Your task to perform on an android device: Open ESPN.com Image 0: 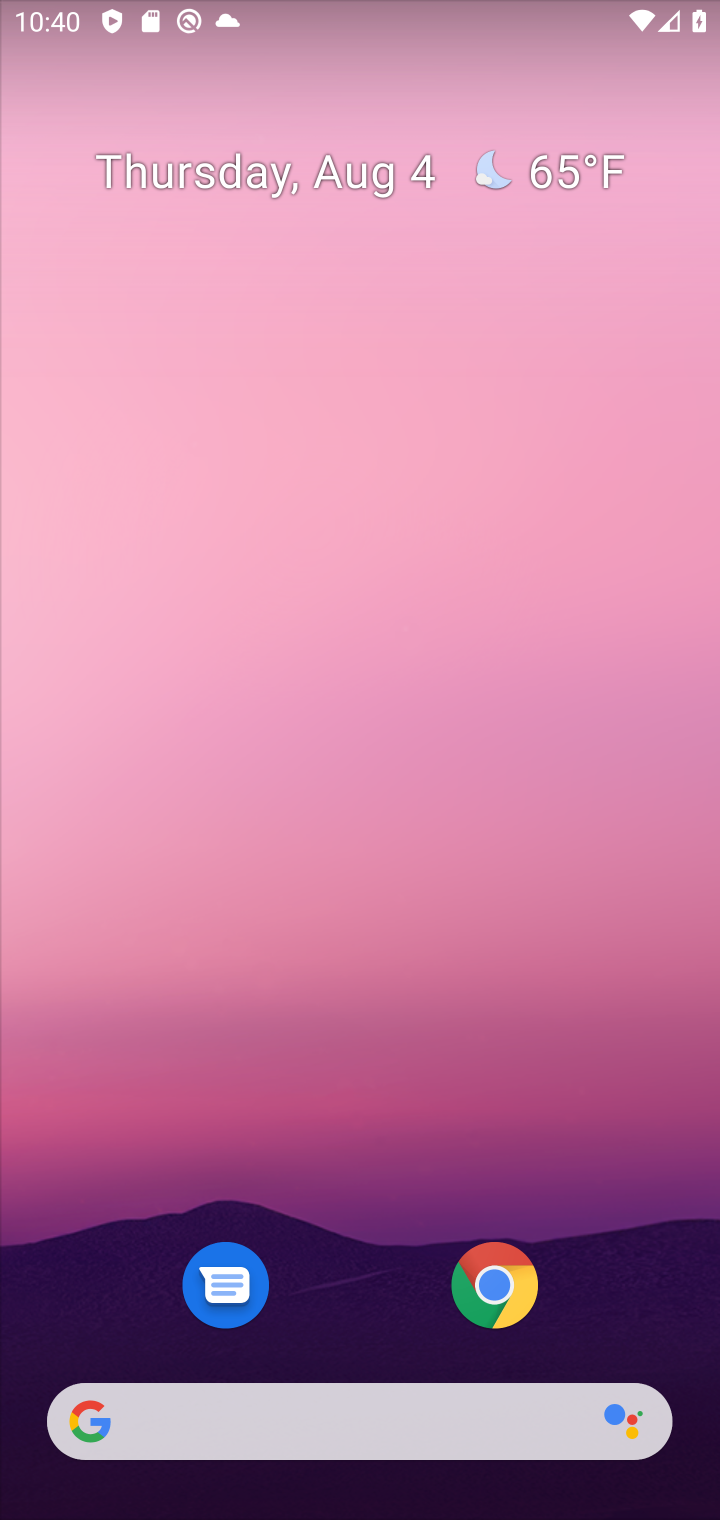
Step 0: click (503, 1299)
Your task to perform on an android device: Open ESPN.com Image 1: 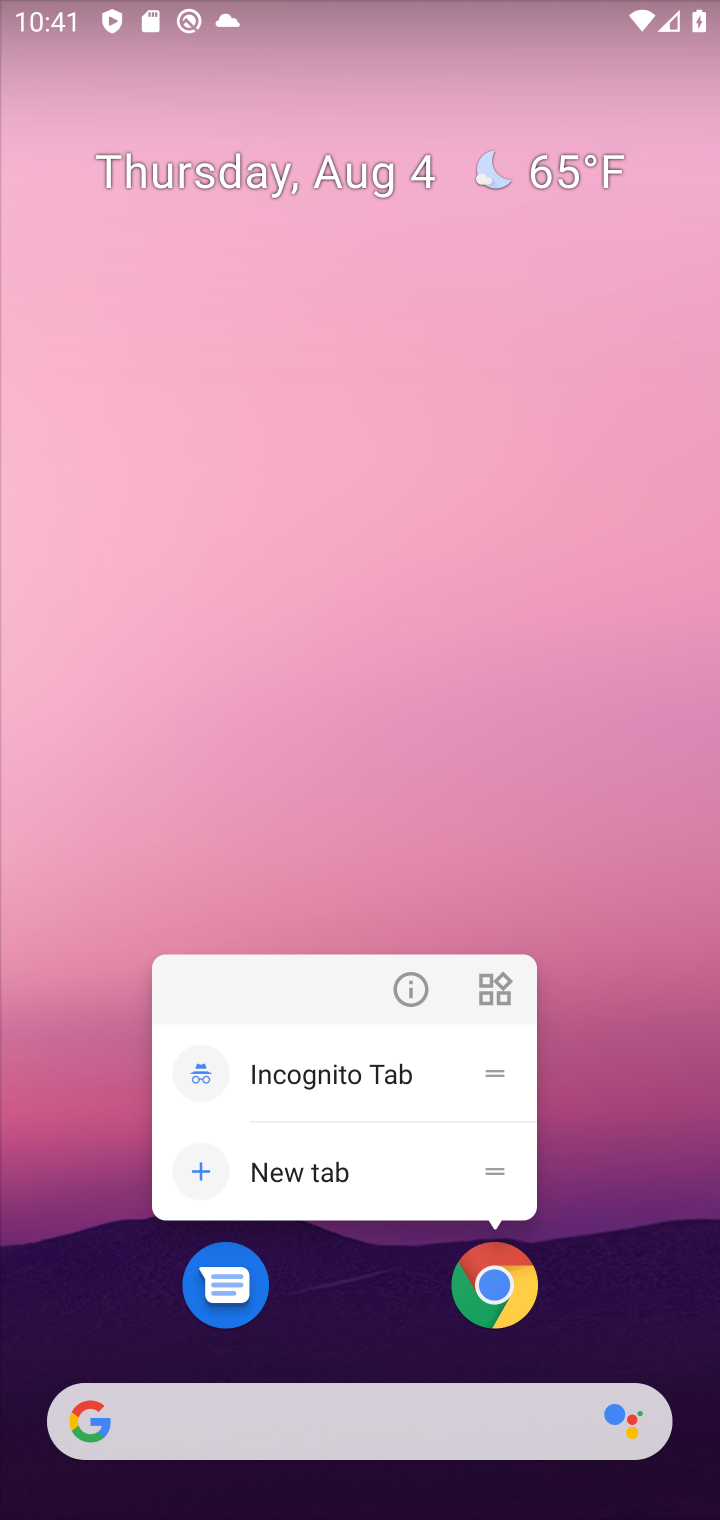
Step 1: click (493, 1264)
Your task to perform on an android device: Open ESPN.com Image 2: 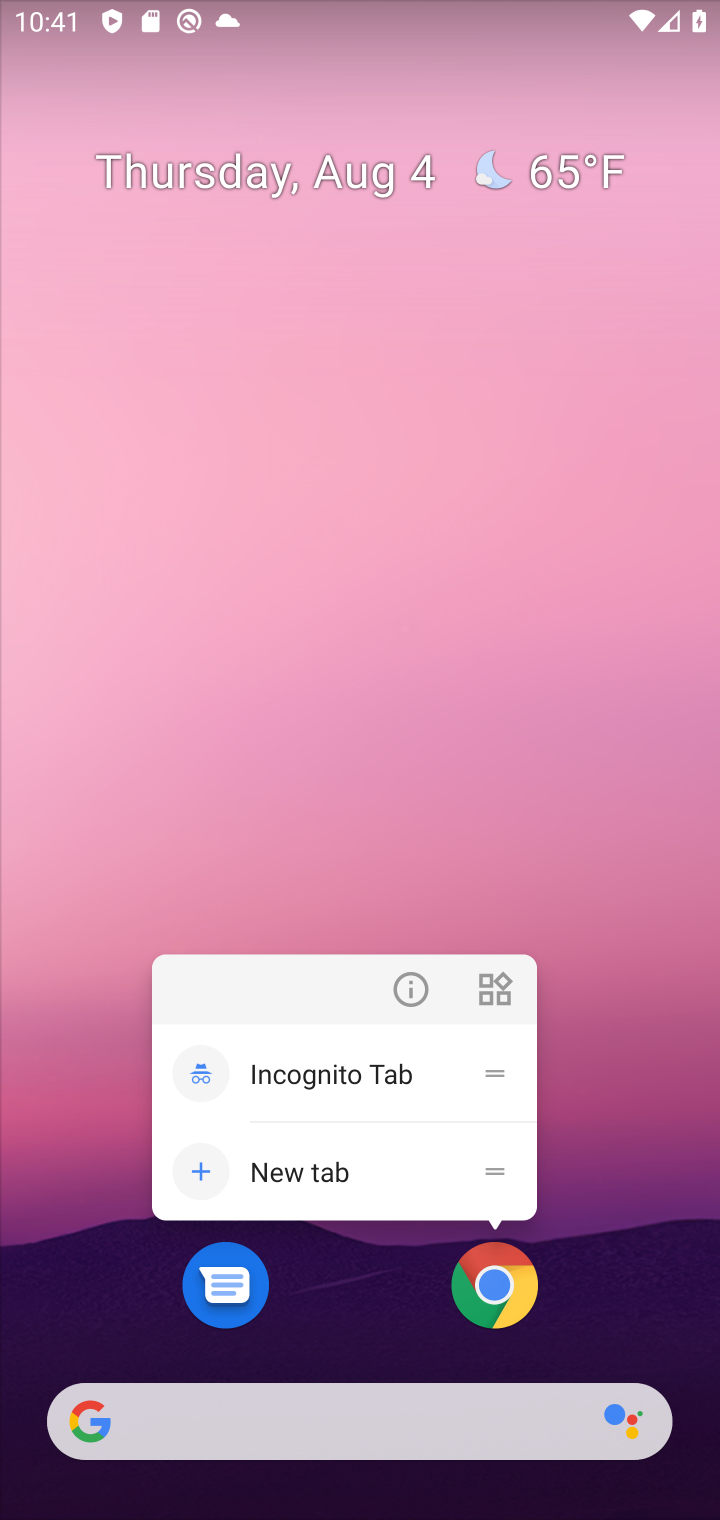
Step 2: click (513, 1267)
Your task to perform on an android device: Open ESPN.com Image 3: 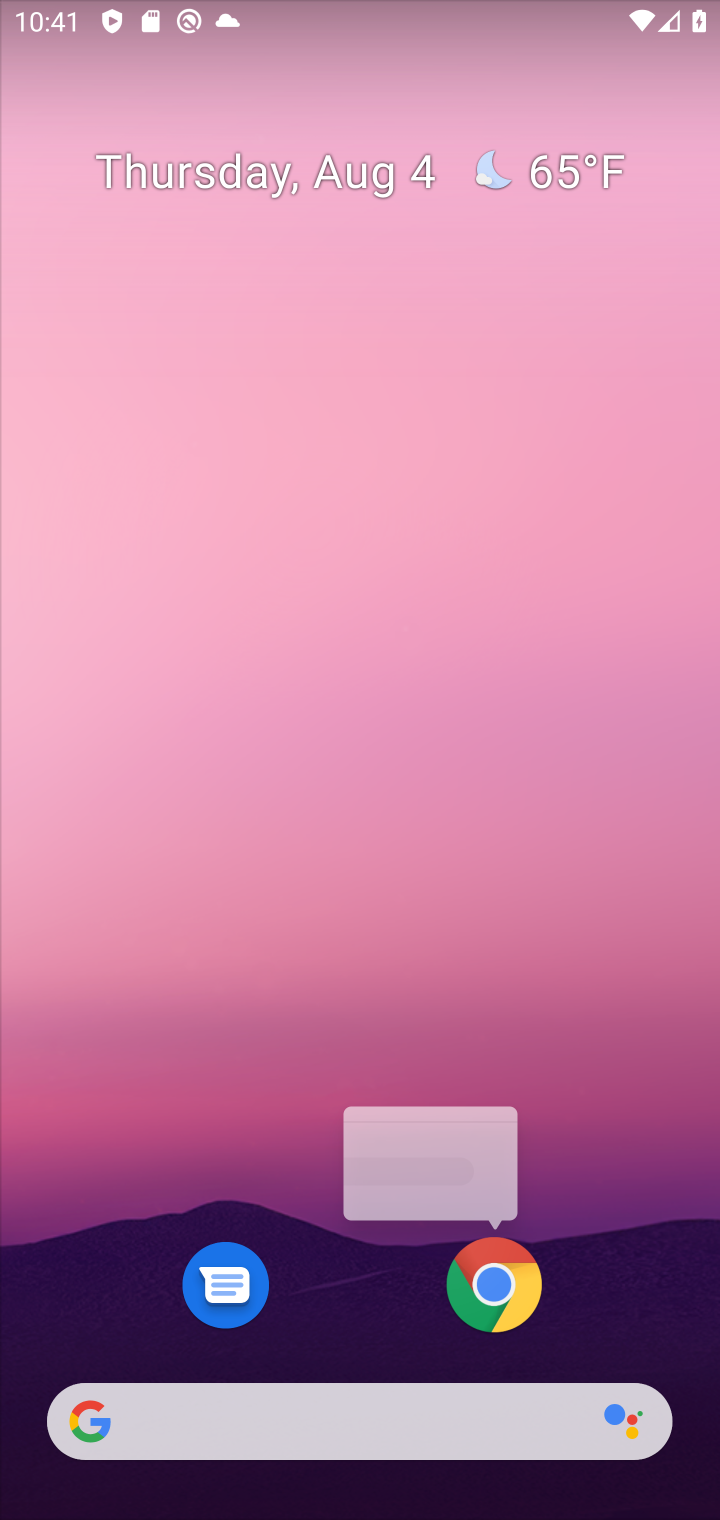
Step 3: drag from (579, 1298) to (585, 5)
Your task to perform on an android device: Open ESPN.com Image 4: 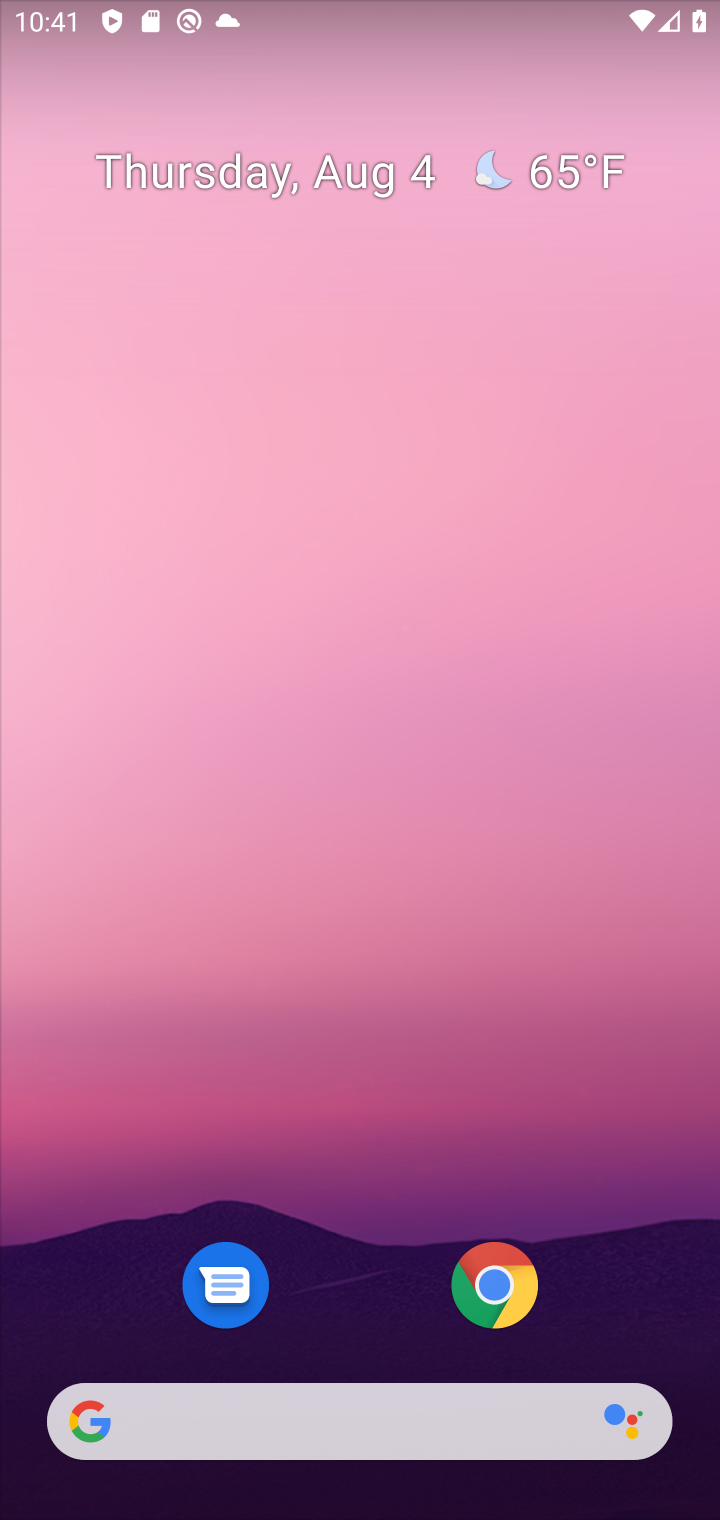
Step 4: drag from (304, 1258) to (362, 6)
Your task to perform on an android device: Open ESPN.com Image 5: 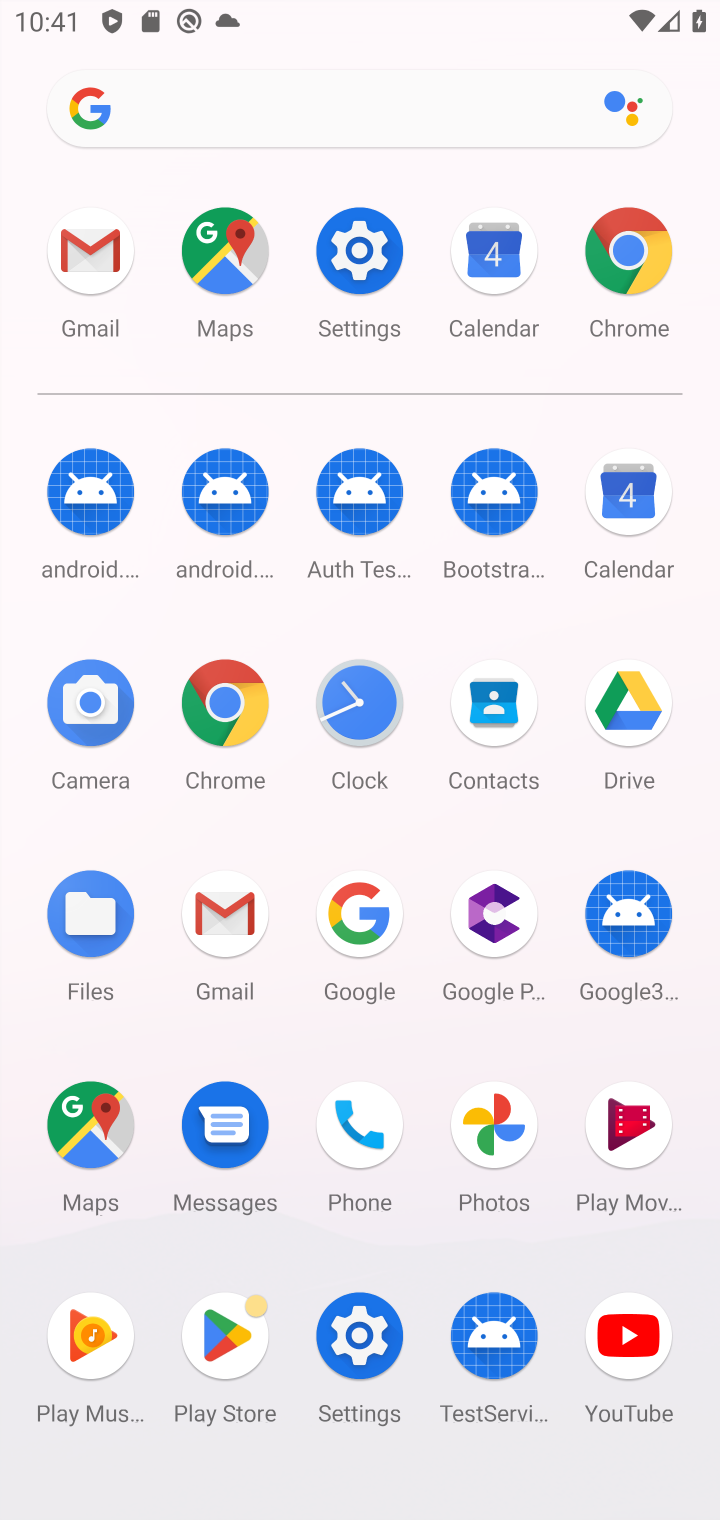
Step 5: click (219, 696)
Your task to perform on an android device: Open ESPN.com Image 6: 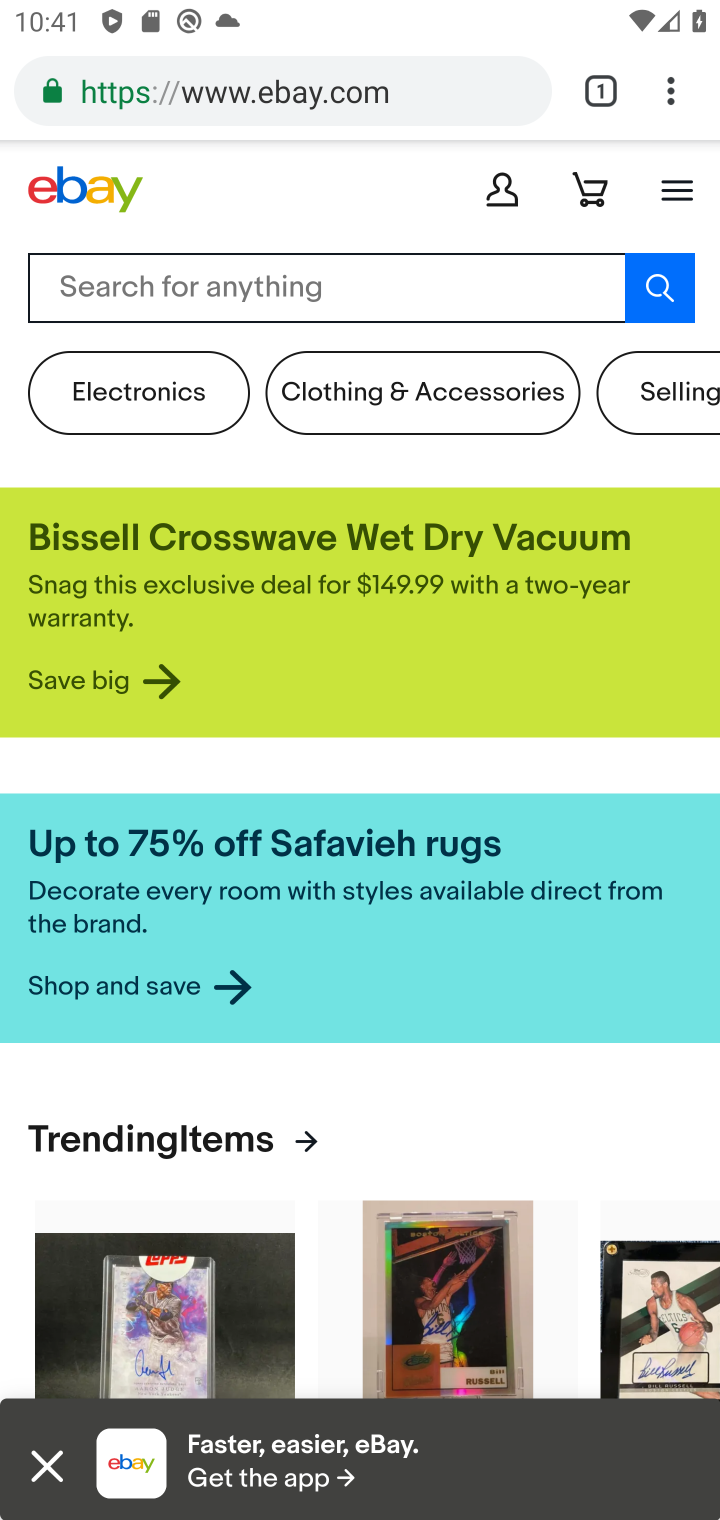
Step 6: click (180, 93)
Your task to perform on an android device: Open ESPN.com Image 7: 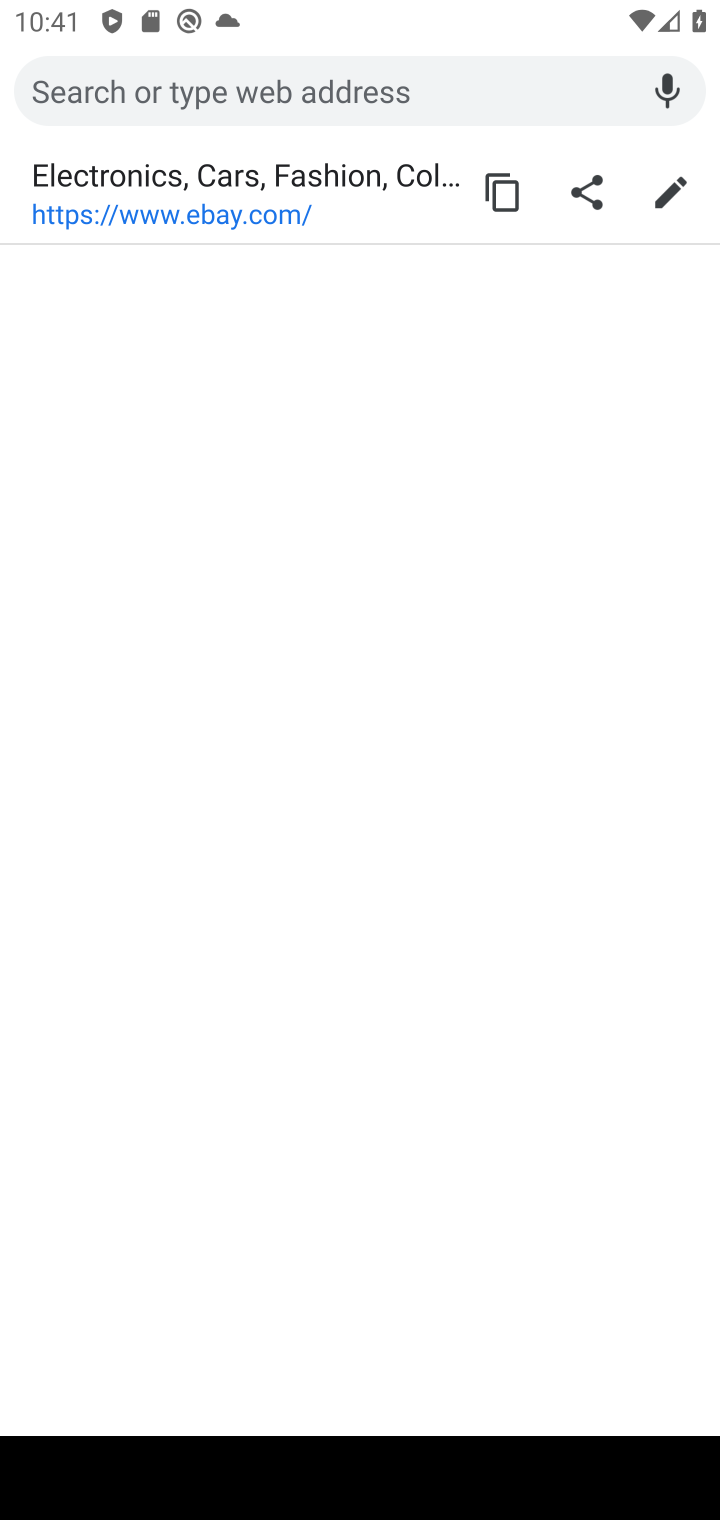
Step 7: type " ESPN.com"
Your task to perform on an android device: Open ESPN.com Image 8: 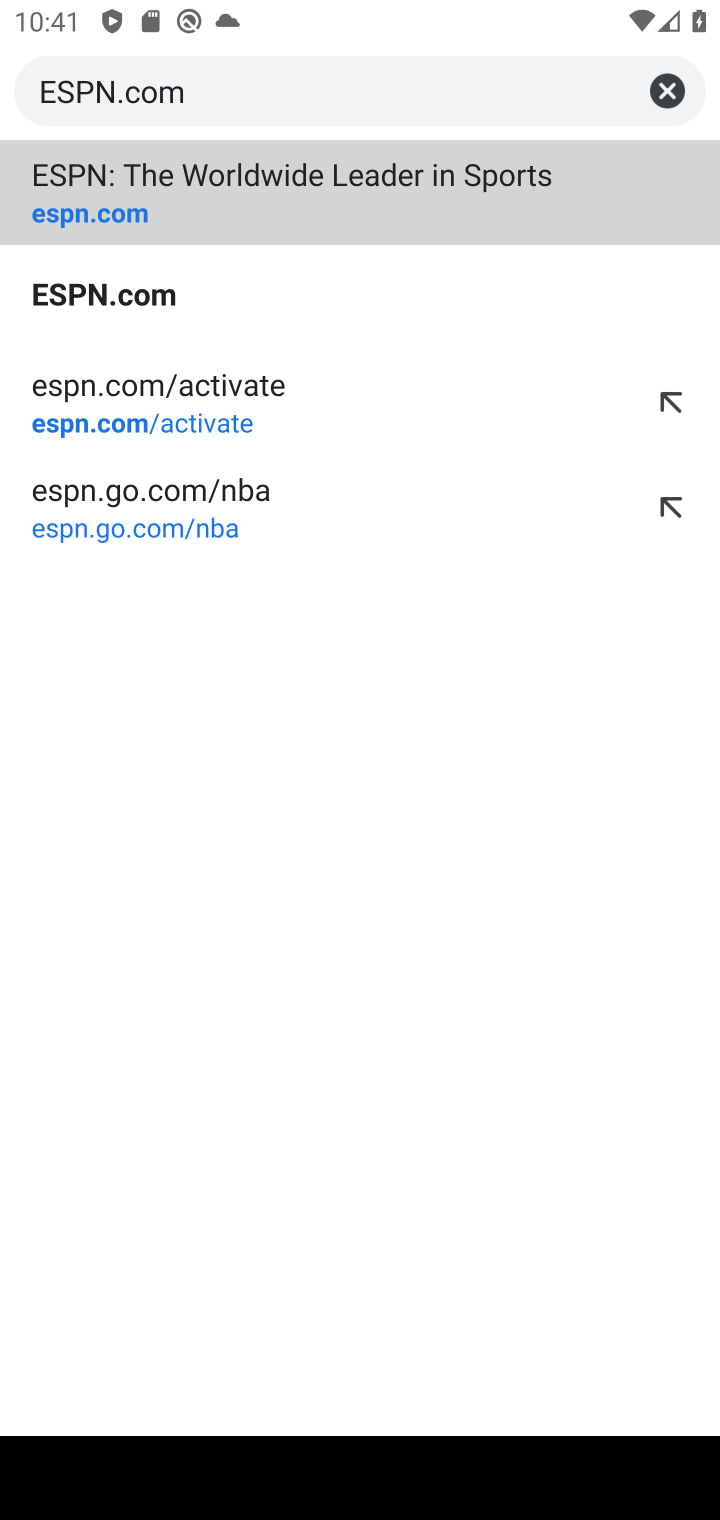
Step 8: click (123, 204)
Your task to perform on an android device: Open ESPN.com Image 9: 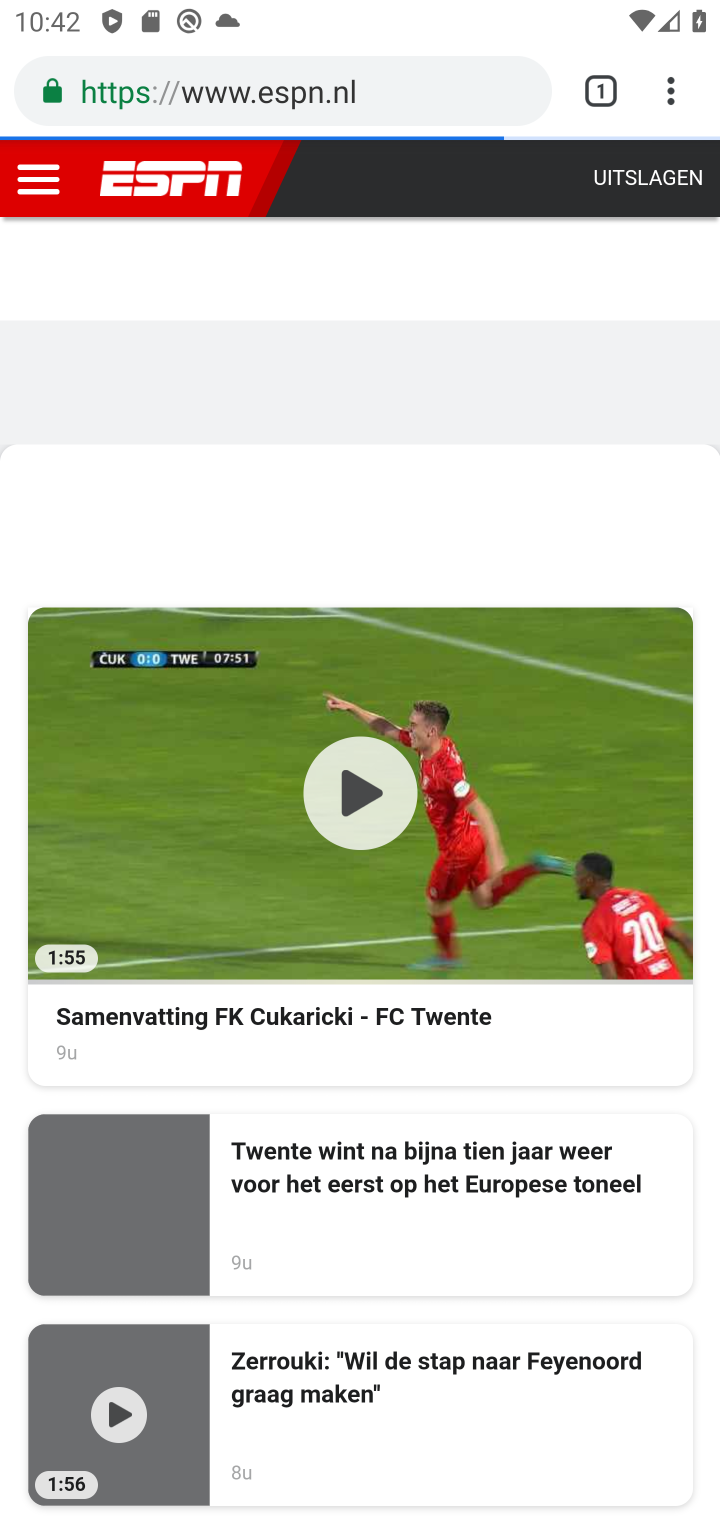
Step 9: task complete